Your task to perform on an android device: turn on showing notifications on the lock screen Image 0: 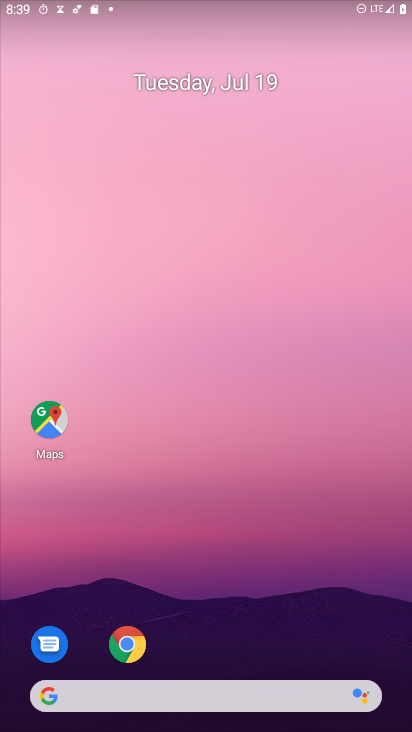
Step 0: drag from (81, 471) to (155, 61)
Your task to perform on an android device: turn on showing notifications on the lock screen Image 1: 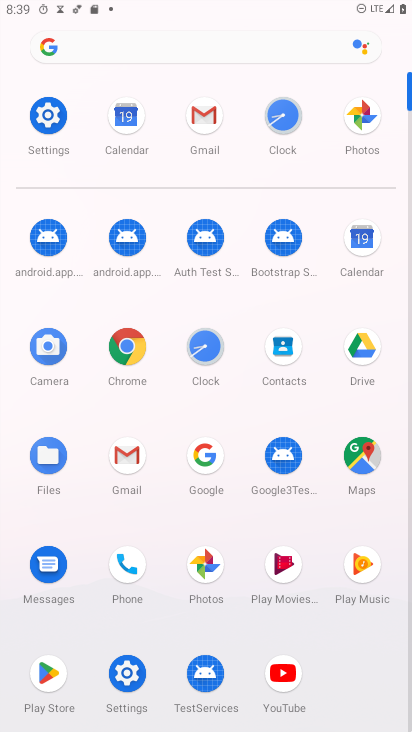
Step 1: click (129, 674)
Your task to perform on an android device: turn on showing notifications on the lock screen Image 2: 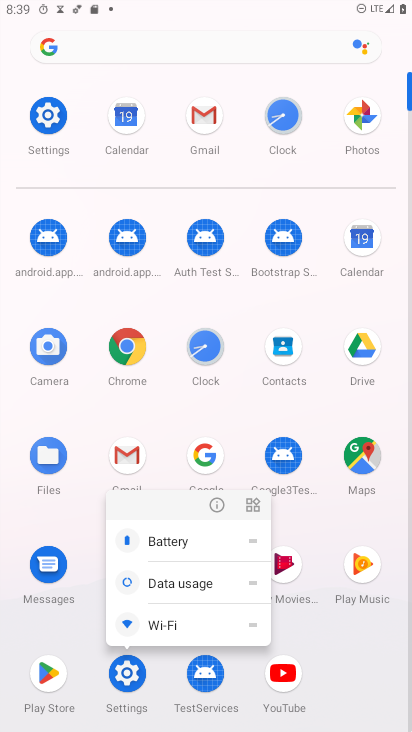
Step 2: click (132, 673)
Your task to perform on an android device: turn on showing notifications on the lock screen Image 3: 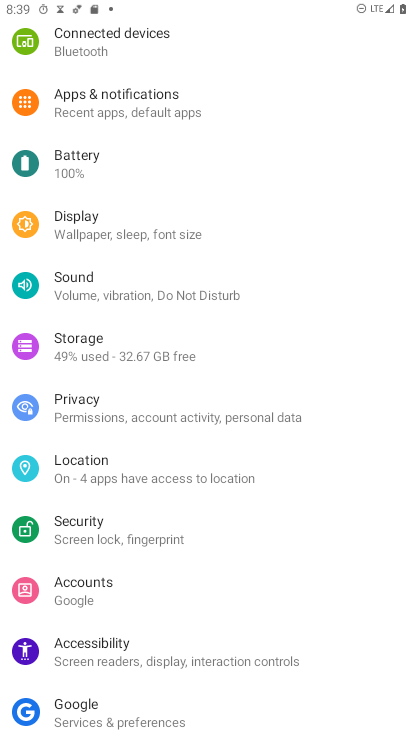
Step 3: click (132, 90)
Your task to perform on an android device: turn on showing notifications on the lock screen Image 4: 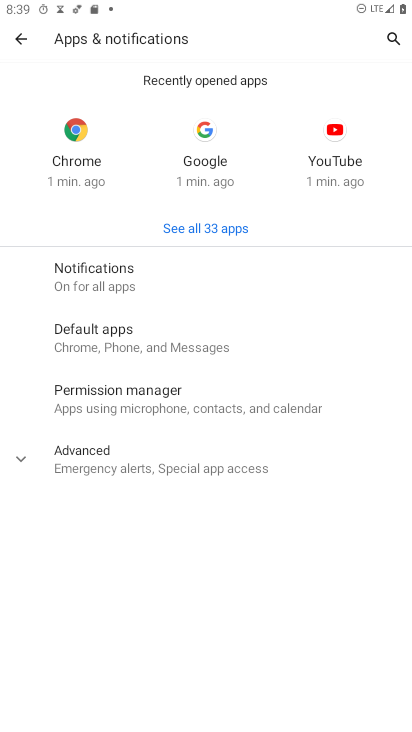
Step 4: click (124, 276)
Your task to perform on an android device: turn on showing notifications on the lock screen Image 5: 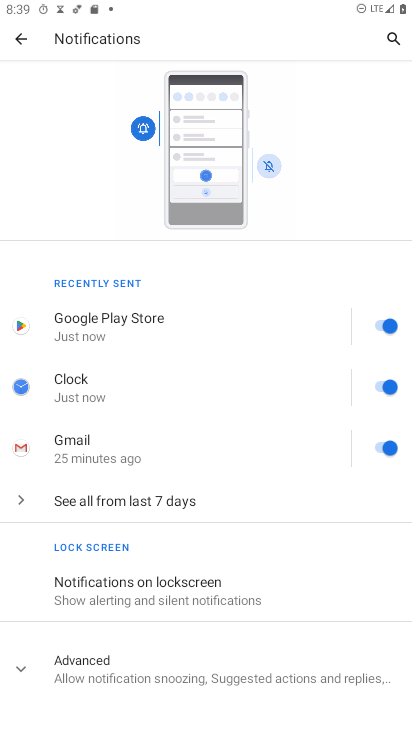
Step 5: click (130, 597)
Your task to perform on an android device: turn on showing notifications on the lock screen Image 6: 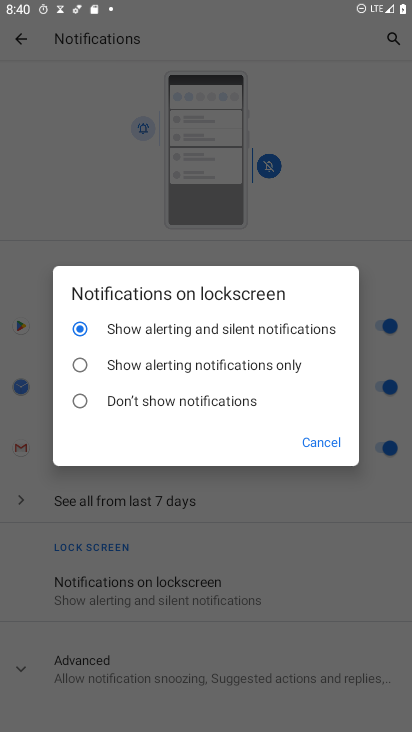
Step 6: task complete